Your task to perform on an android device: Go to privacy settings Image 0: 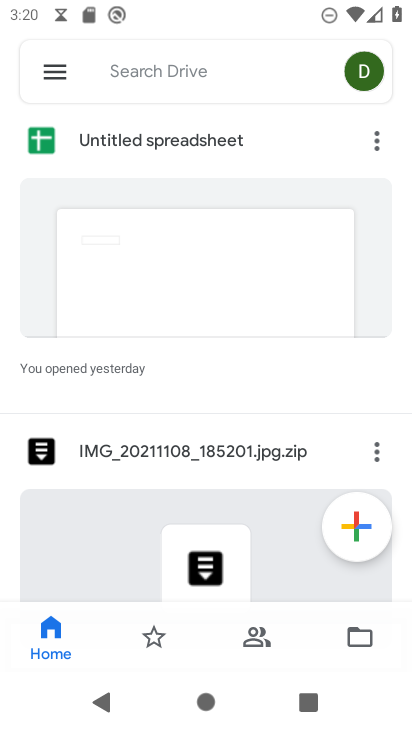
Step 0: press home button
Your task to perform on an android device: Go to privacy settings Image 1: 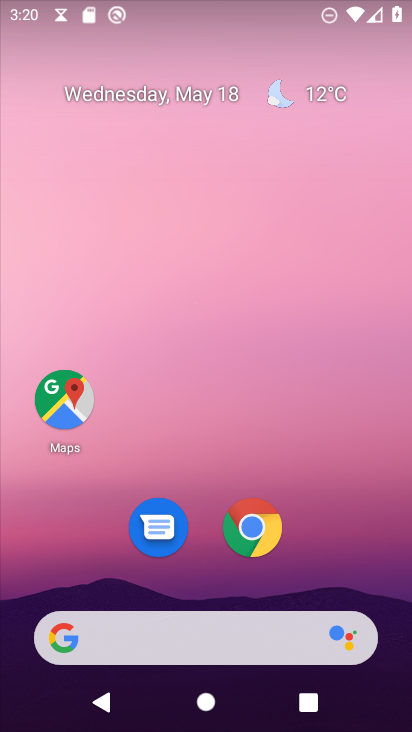
Step 1: drag from (332, 533) to (233, 23)
Your task to perform on an android device: Go to privacy settings Image 2: 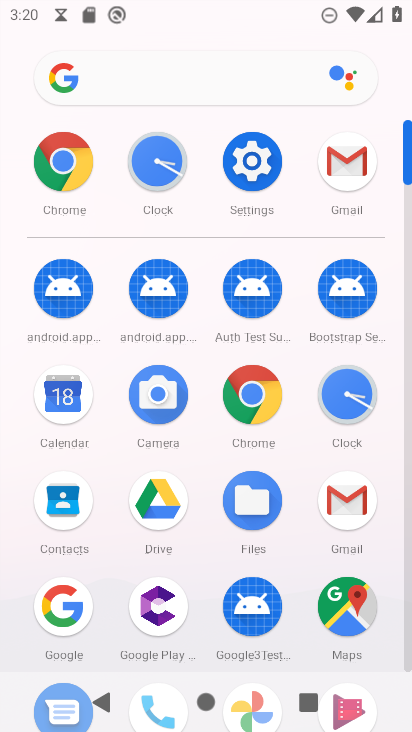
Step 2: click (249, 160)
Your task to perform on an android device: Go to privacy settings Image 3: 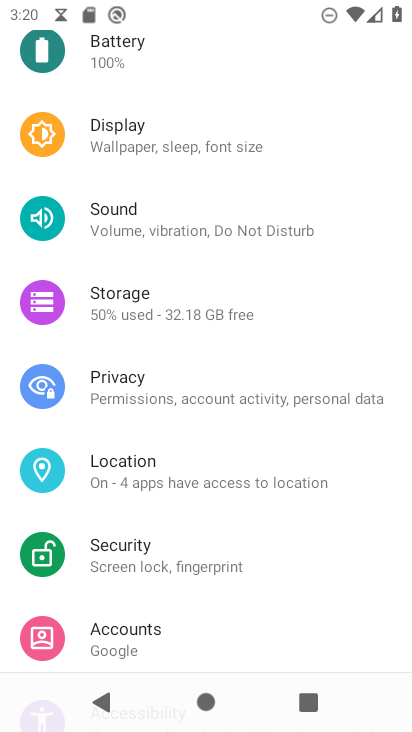
Step 3: click (181, 378)
Your task to perform on an android device: Go to privacy settings Image 4: 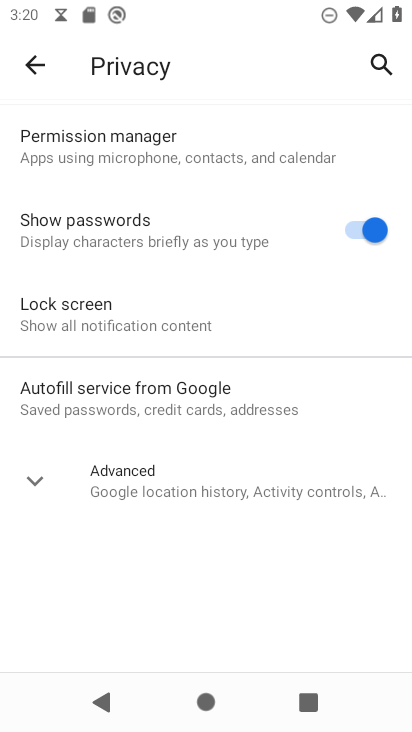
Step 4: task complete